Your task to perform on an android device: turn on location history Image 0: 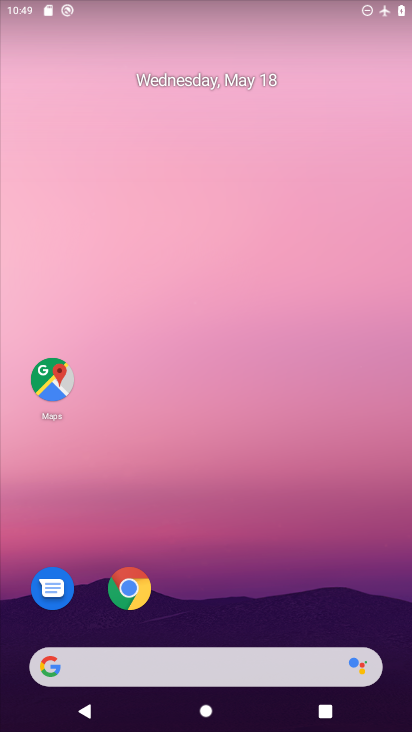
Step 0: click (51, 381)
Your task to perform on an android device: turn on location history Image 1: 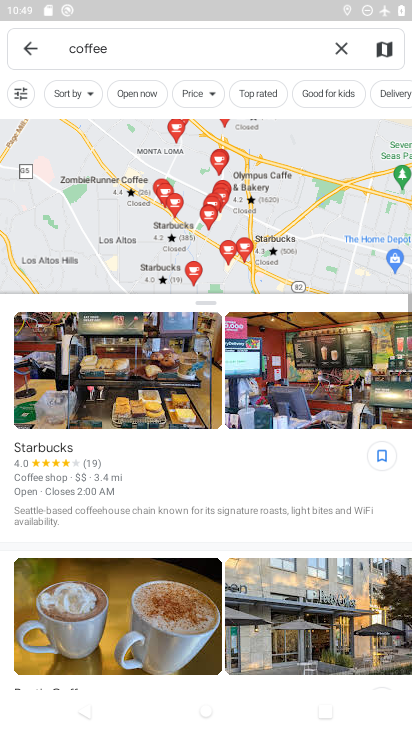
Step 1: click (347, 53)
Your task to perform on an android device: turn on location history Image 2: 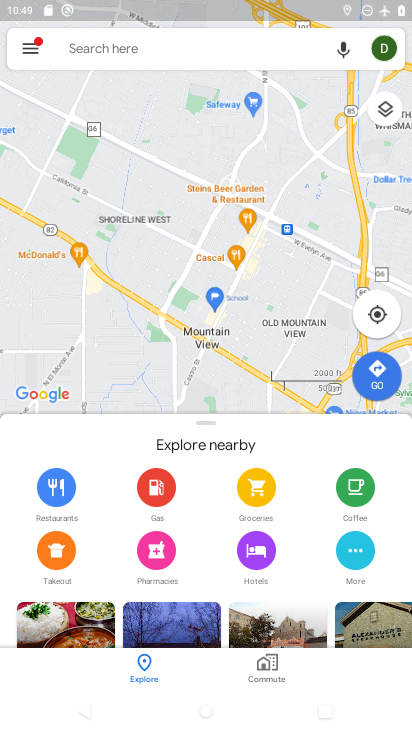
Step 2: click (38, 49)
Your task to perform on an android device: turn on location history Image 3: 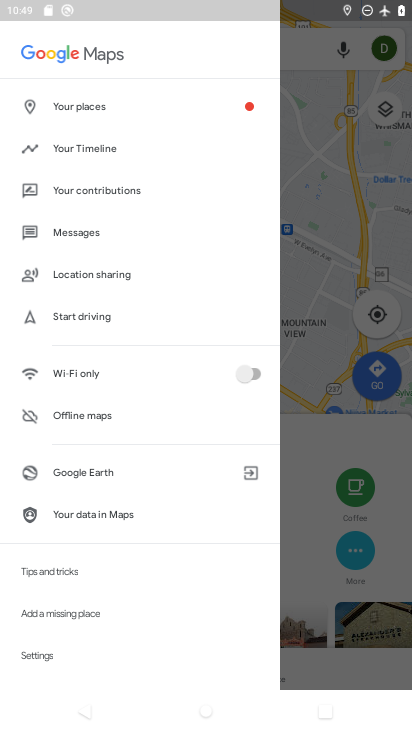
Step 3: click (72, 152)
Your task to perform on an android device: turn on location history Image 4: 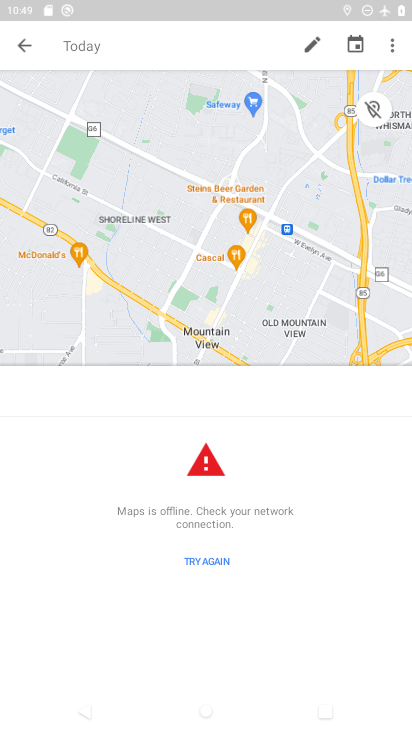
Step 4: click (397, 48)
Your task to perform on an android device: turn on location history Image 5: 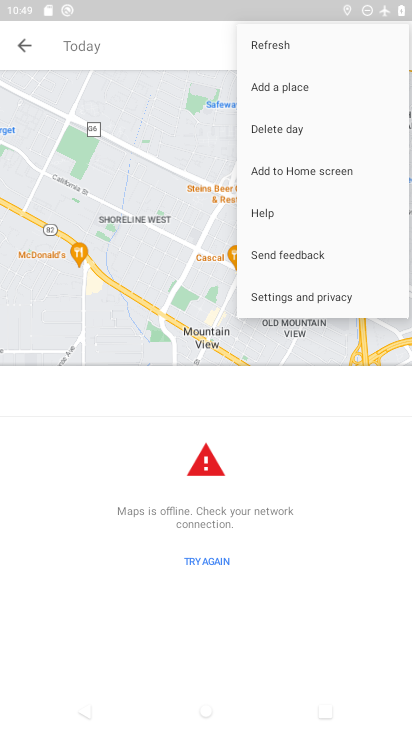
Step 5: click (302, 294)
Your task to perform on an android device: turn on location history Image 6: 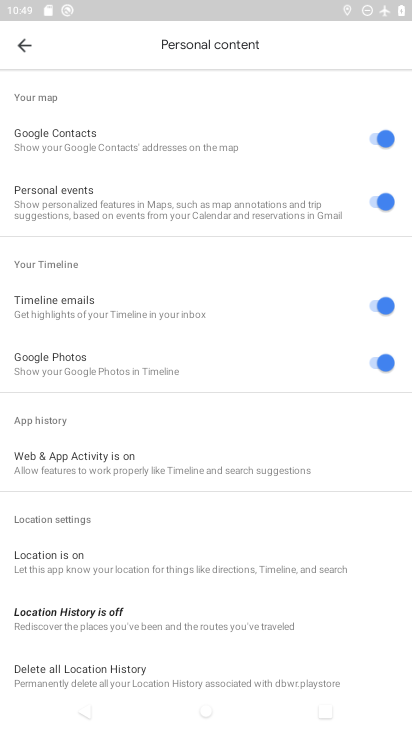
Step 6: click (108, 607)
Your task to perform on an android device: turn on location history Image 7: 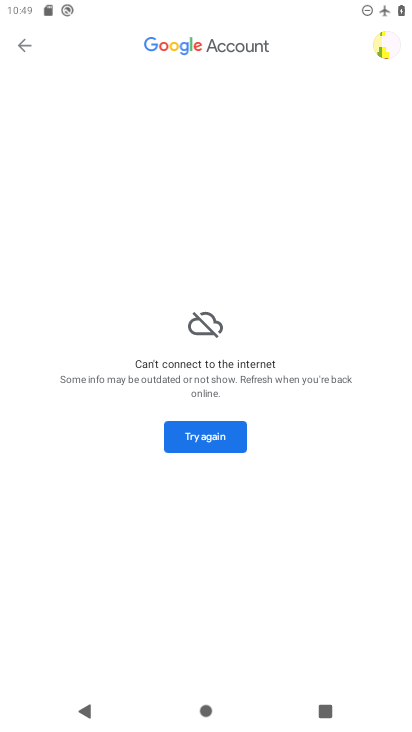
Step 7: task complete